Your task to perform on an android device: refresh tabs in the chrome app Image 0: 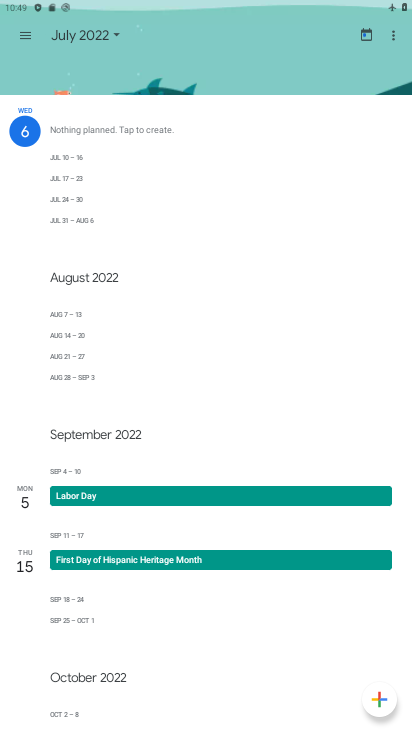
Step 0: press home button
Your task to perform on an android device: refresh tabs in the chrome app Image 1: 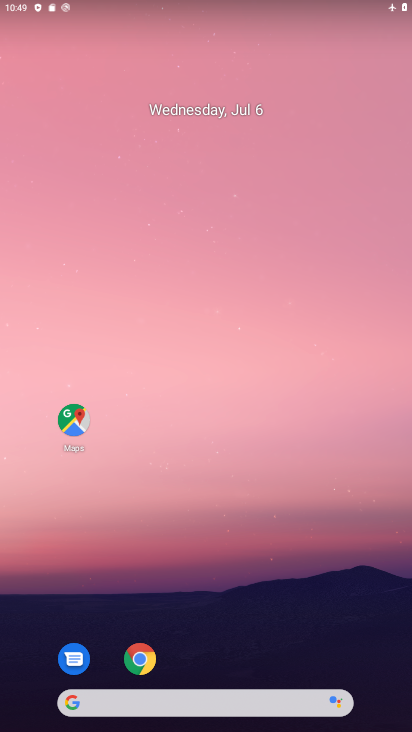
Step 1: click (157, 663)
Your task to perform on an android device: refresh tabs in the chrome app Image 2: 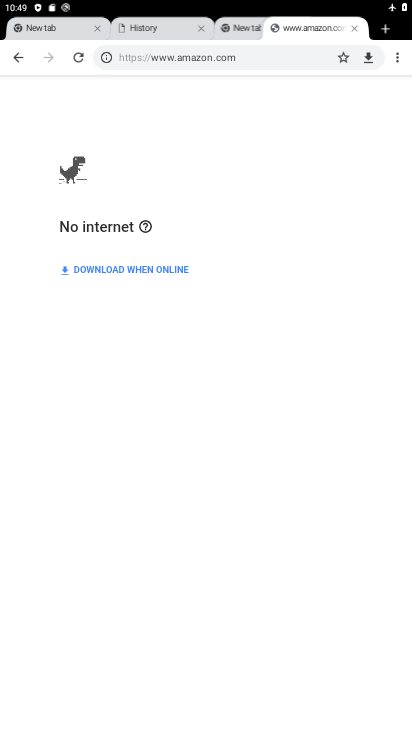
Step 2: click (396, 54)
Your task to perform on an android device: refresh tabs in the chrome app Image 3: 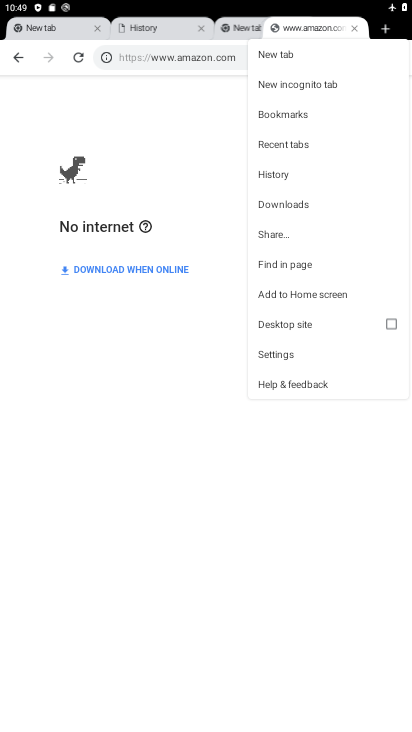
Step 3: click (140, 140)
Your task to perform on an android device: refresh tabs in the chrome app Image 4: 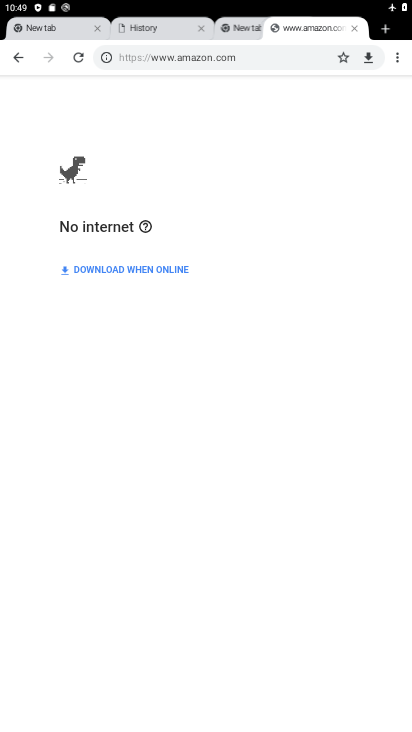
Step 4: click (83, 59)
Your task to perform on an android device: refresh tabs in the chrome app Image 5: 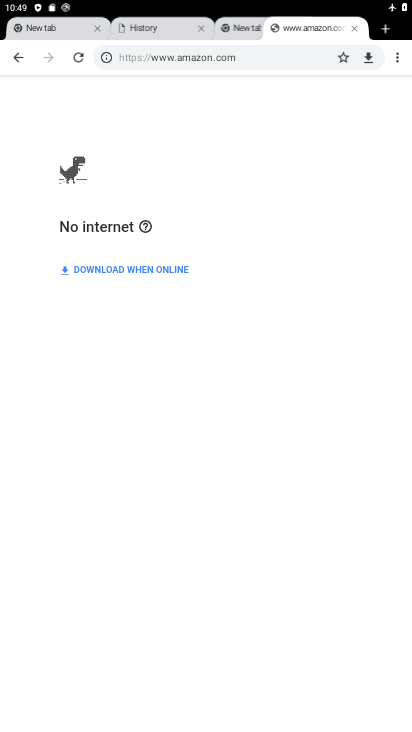
Step 5: task complete